Your task to perform on an android device: toggle notification dots Image 0: 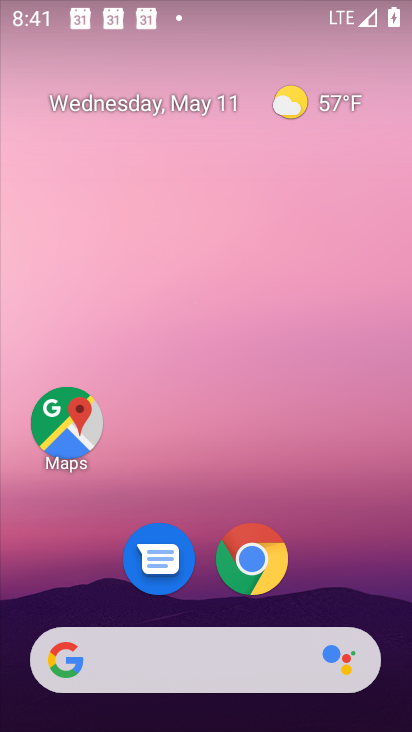
Step 0: press home button
Your task to perform on an android device: toggle notification dots Image 1: 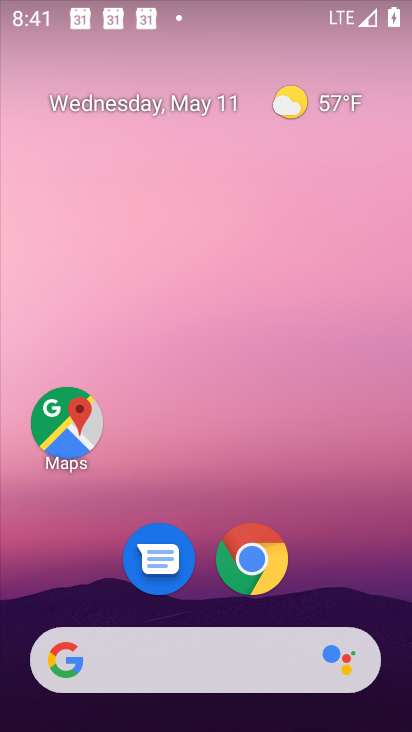
Step 1: drag from (355, 584) to (360, 55)
Your task to perform on an android device: toggle notification dots Image 2: 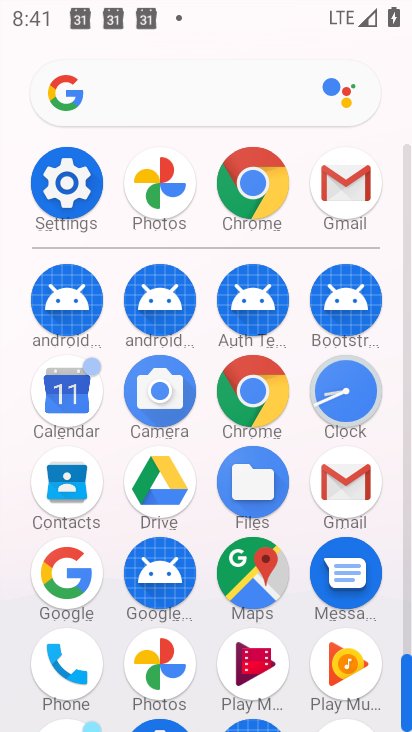
Step 2: click (36, 180)
Your task to perform on an android device: toggle notification dots Image 3: 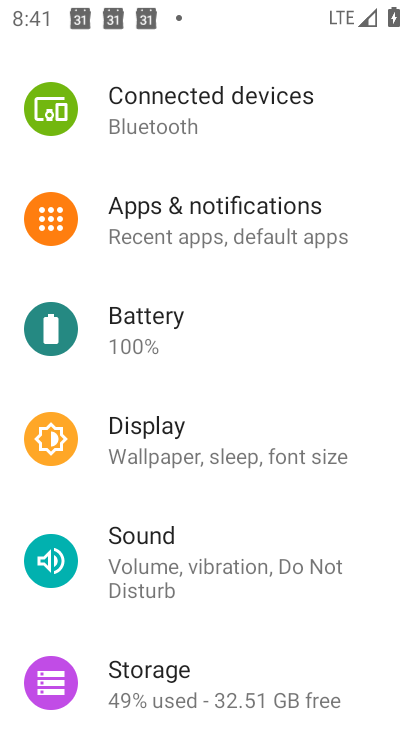
Step 3: click (44, 177)
Your task to perform on an android device: toggle notification dots Image 4: 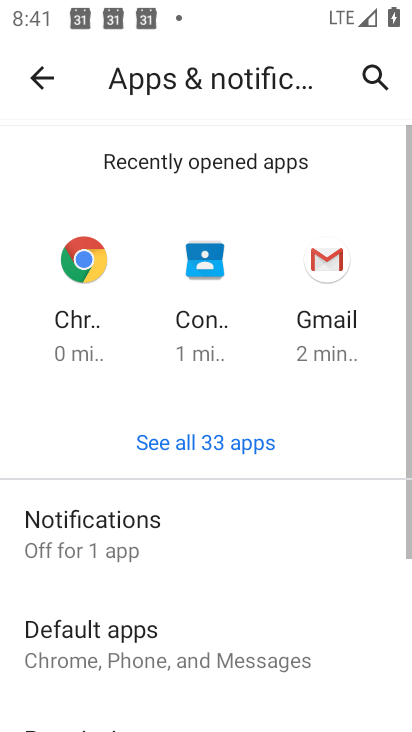
Step 4: click (147, 530)
Your task to perform on an android device: toggle notification dots Image 5: 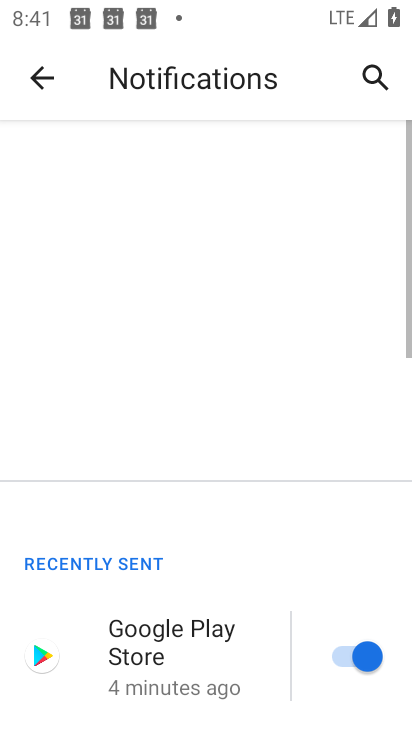
Step 5: drag from (173, 549) to (274, 39)
Your task to perform on an android device: toggle notification dots Image 6: 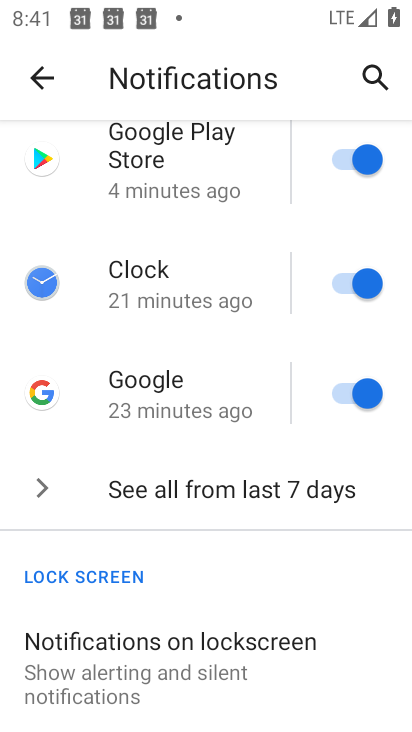
Step 6: drag from (231, 693) to (333, 354)
Your task to perform on an android device: toggle notification dots Image 7: 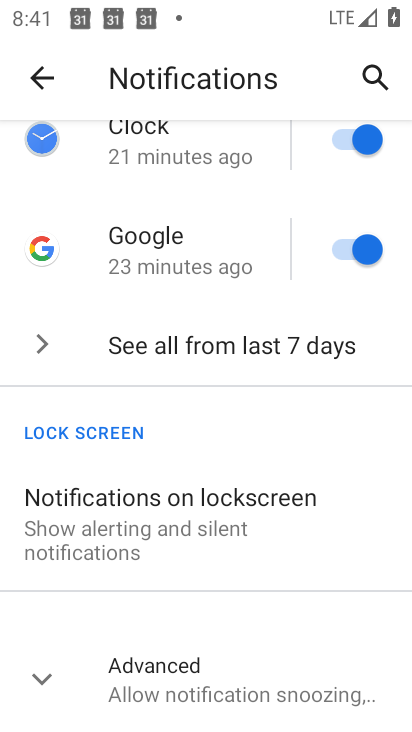
Step 7: click (285, 709)
Your task to perform on an android device: toggle notification dots Image 8: 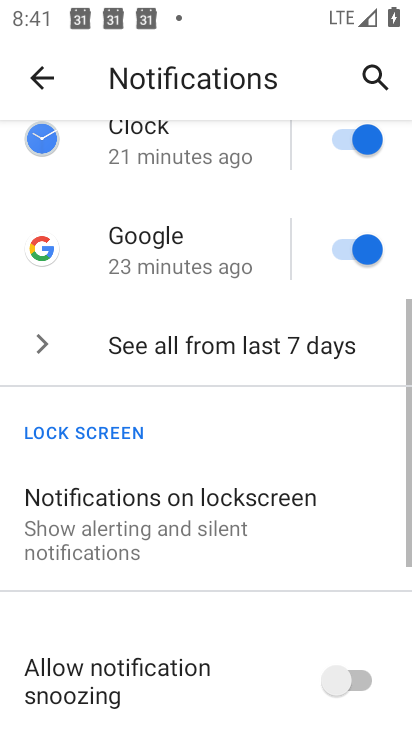
Step 8: drag from (285, 709) to (283, 337)
Your task to perform on an android device: toggle notification dots Image 9: 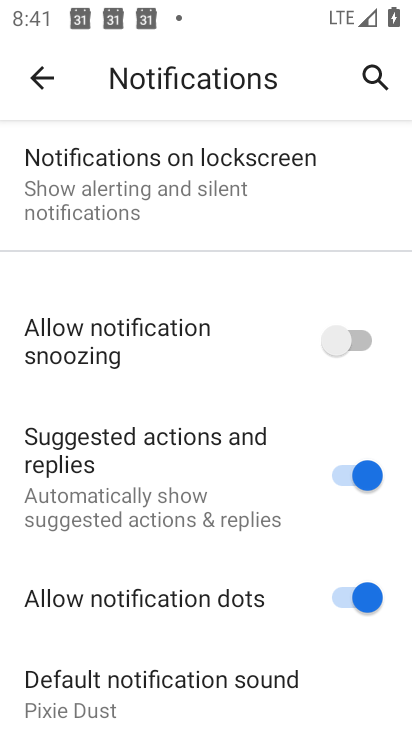
Step 9: click (342, 608)
Your task to perform on an android device: toggle notification dots Image 10: 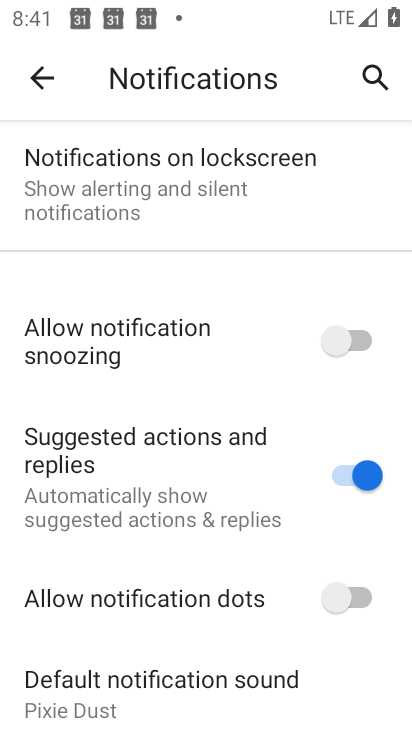
Step 10: task complete